Your task to perform on an android device: open chrome privacy settings Image 0: 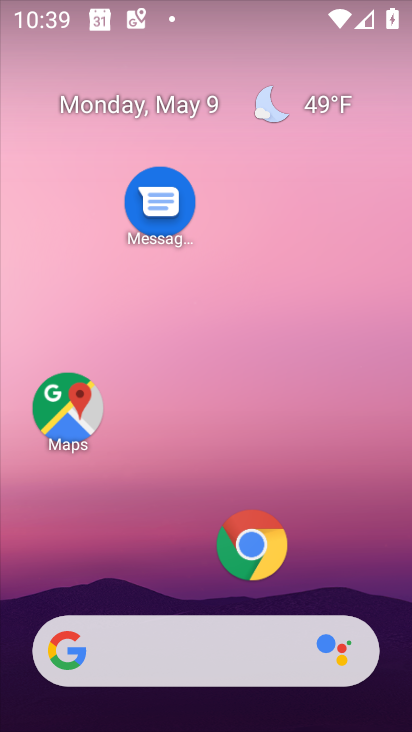
Step 0: click (236, 553)
Your task to perform on an android device: open chrome privacy settings Image 1: 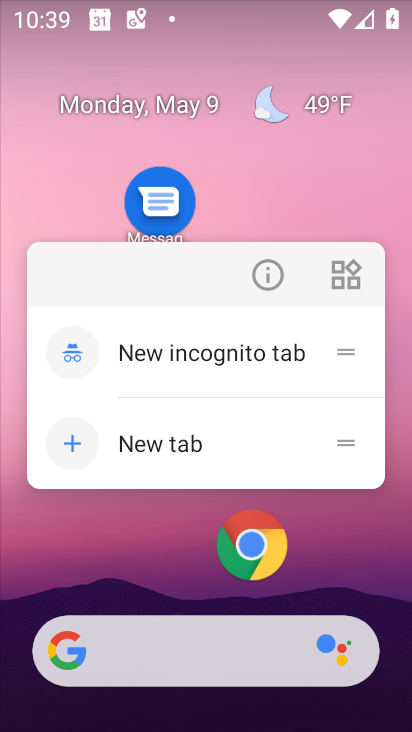
Step 1: click (252, 547)
Your task to perform on an android device: open chrome privacy settings Image 2: 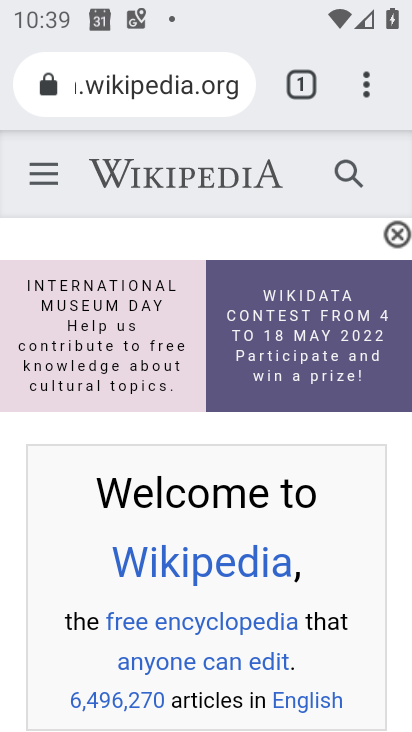
Step 2: click (368, 99)
Your task to perform on an android device: open chrome privacy settings Image 3: 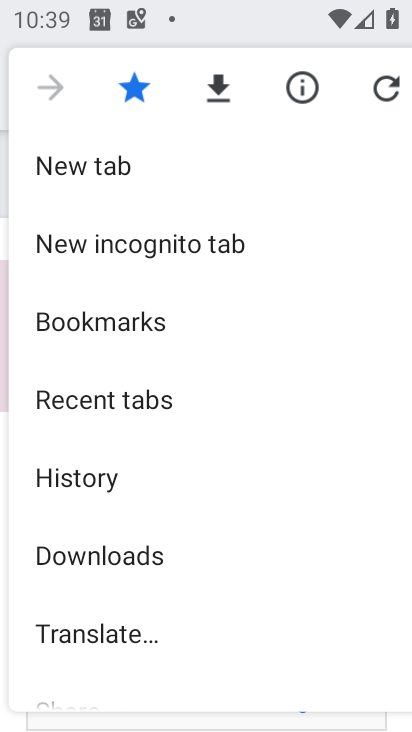
Step 3: drag from (212, 557) to (206, 224)
Your task to perform on an android device: open chrome privacy settings Image 4: 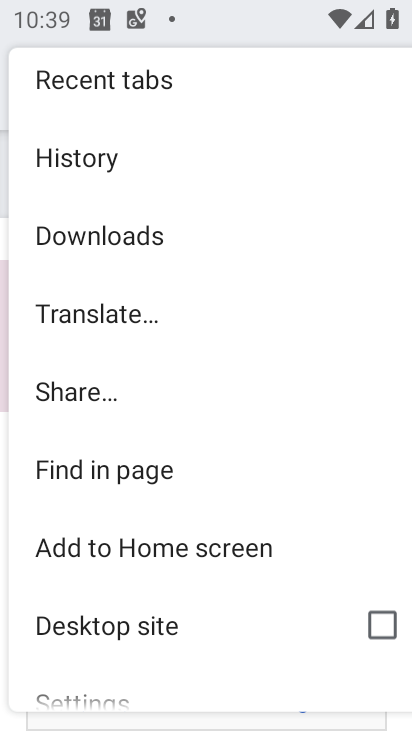
Step 4: drag from (148, 582) to (127, 314)
Your task to perform on an android device: open chrome privacy settings Image 5: 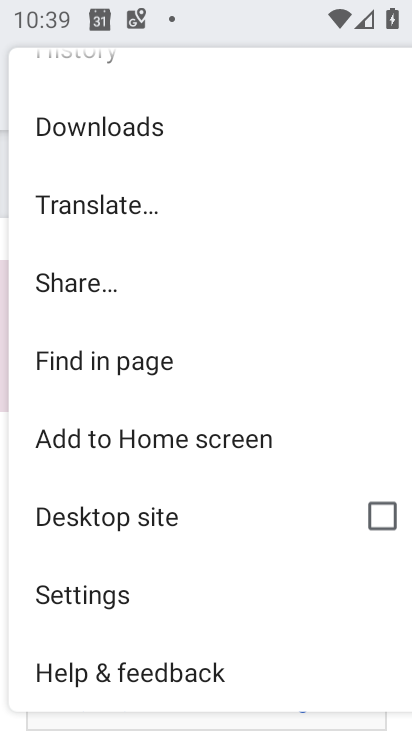
Step 5: click (164, 601)
Your task to perform on an android device: open chrome privacy settings Image 6: 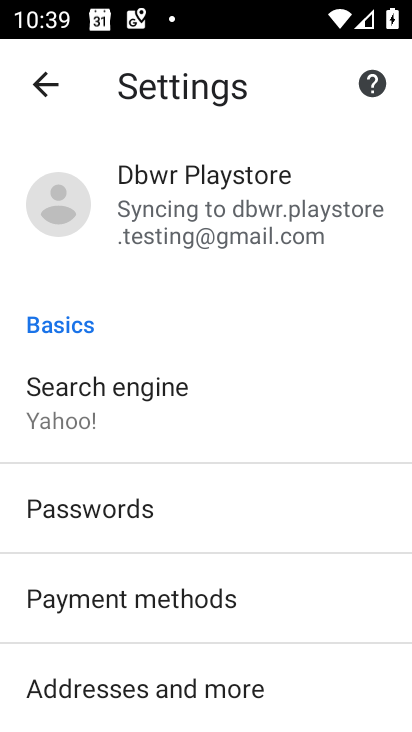
Step 6: drag from (97, 664) to (127, 434)
Your task to perform on an android device: open chrome privacy settings Image 7: 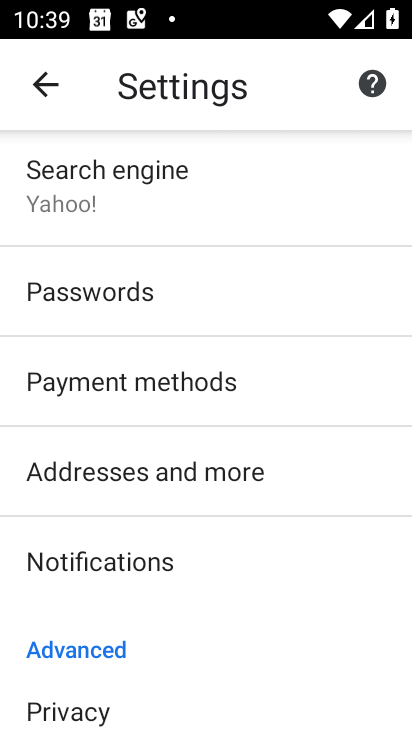
Step 7: drag from (59, 673) to (88, 411)
Your task to perform on an android device: open chrome privacy settings Image 8: 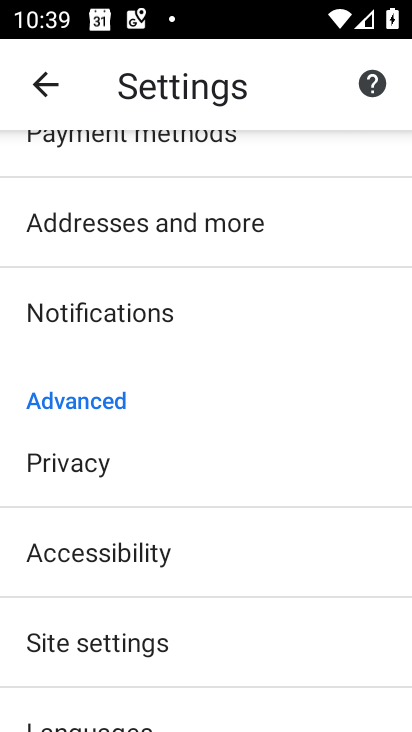
Step 8: click (111, 467)
Your task to perform on an android device: open chrome privacy settings Image 9: 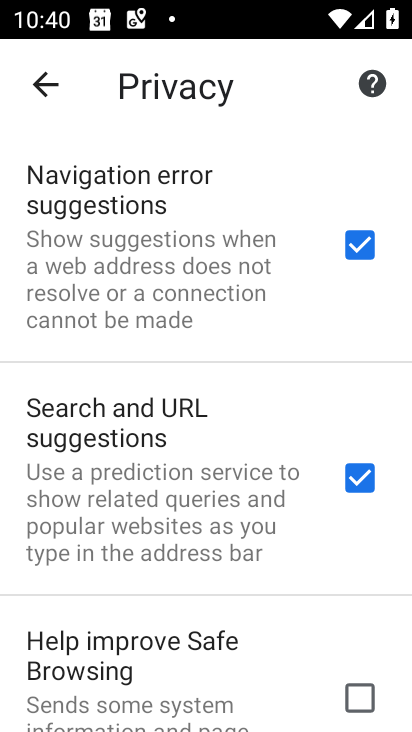
Step 9: task complete